Your task to perform on an android device: Open location settings Image 0: 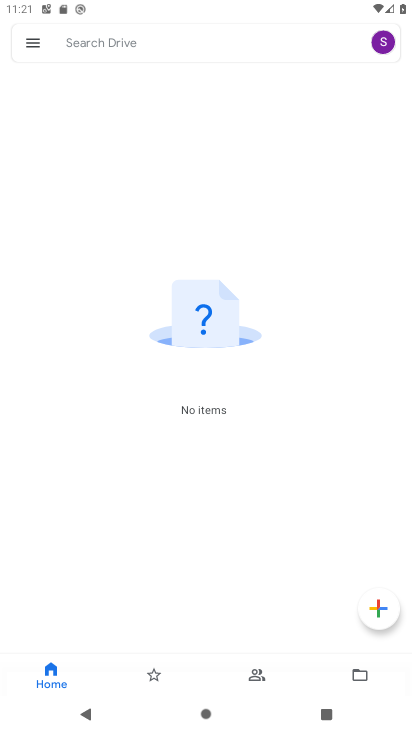
Step 0: press home button
Your task to perform on an android device: Open location settings Image 1: 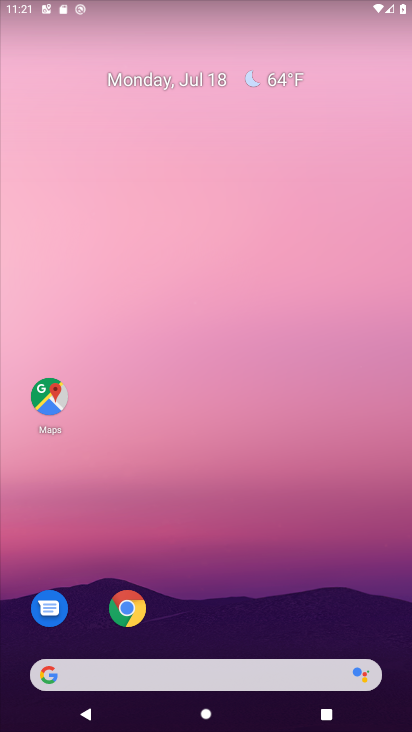
Step 1: drag from (213, 605) to (191, 102)
Your task to perform on an android device: Open location settings Image 2: 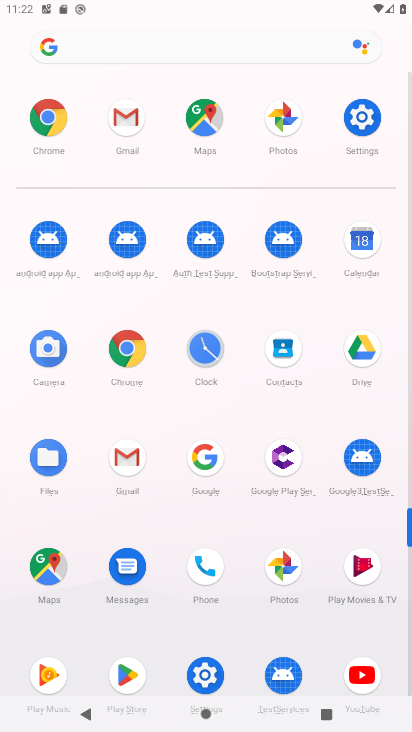
Step 2: click (203, 677)
Your task to perform on an android device: Open location settings Image 3: 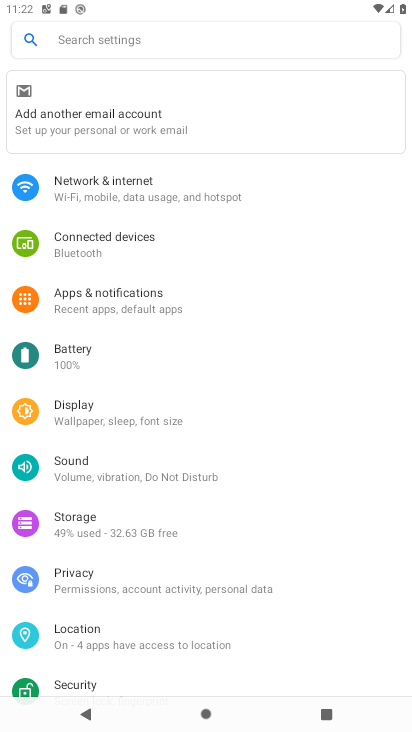
Step 3: click (119, 635)
Your task to perform on an android device: Open location settings Image 4: 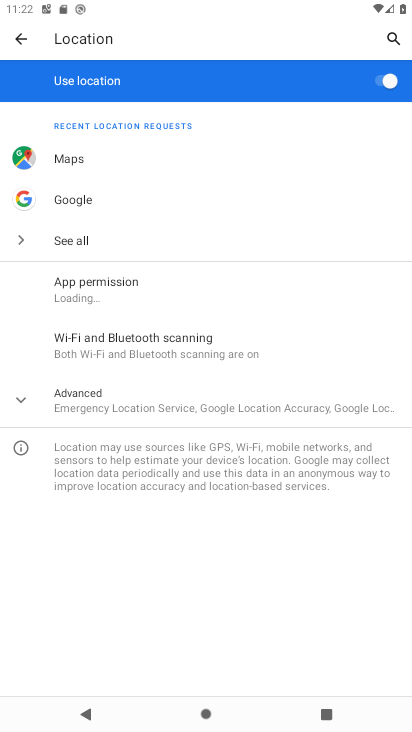
Step 4: task complete